Your task to perform on an android device: turn notification dots on Image 0: 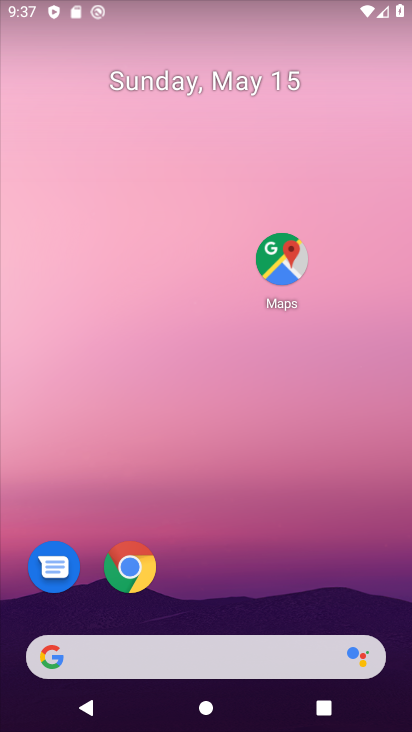
Step 0: drag from (244, 564) to (192, 13)
Your task to perform on an android device: turn notification dots on Image 1: 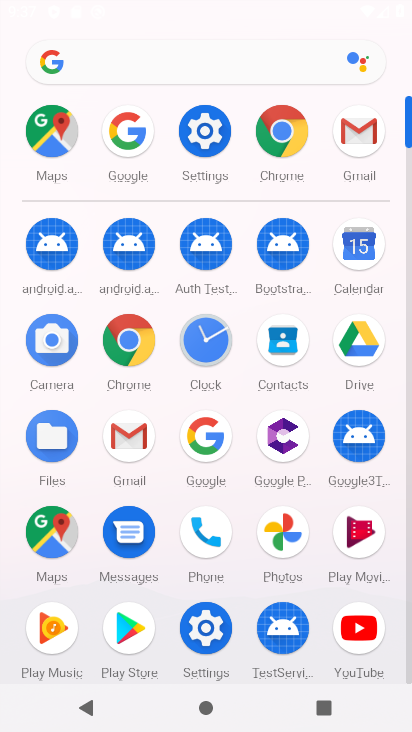
Step 1: click (211, 118)
Your task to perform on an android device: turn notification dots on Image 2: 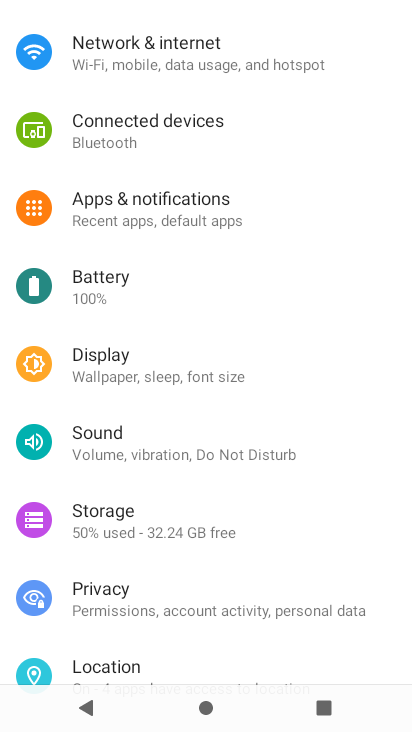
Step 2: click (174, 205)
Your task to perform on an android device: turn notification dots on Image 3: 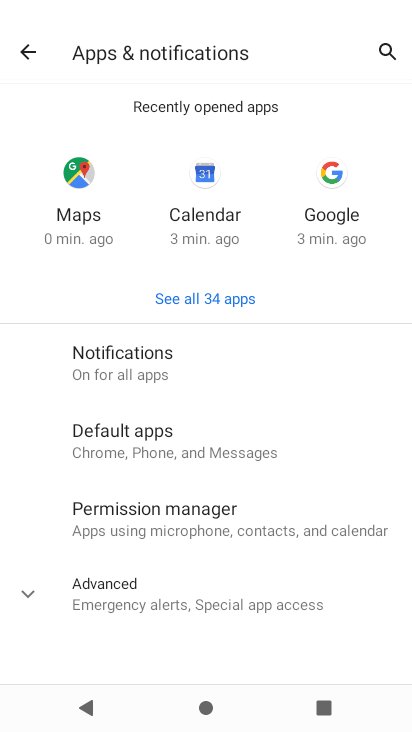
Step 3: click (147, 364)
Your task to perform on an android device: turn notification dots on Image 4: 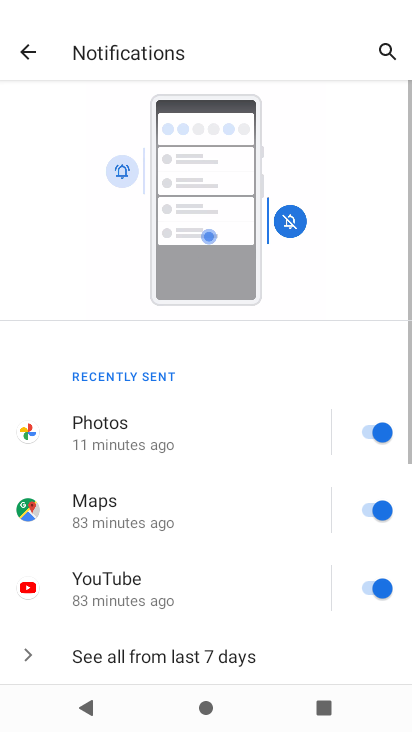
Step 4: drag from (228, 549) to (241, 14)
Your task to perform on an android device: turn notification dots on Image 5: 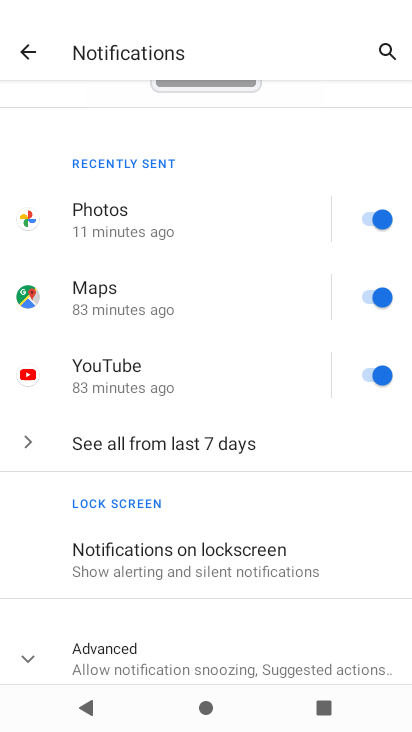
Step 5: click (120, 656)
Your task to perform on an android device: turn notification dots on Image 6: 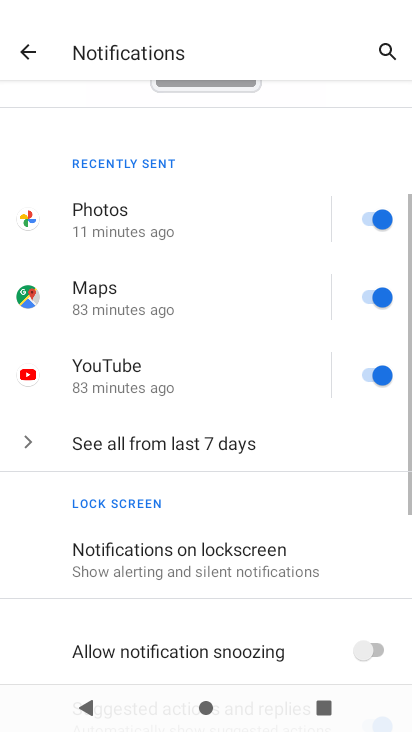
Step 6: drag from (192, 627) to (210, 228)
Your task to perform on an android device: turn notification dots on Image 7: 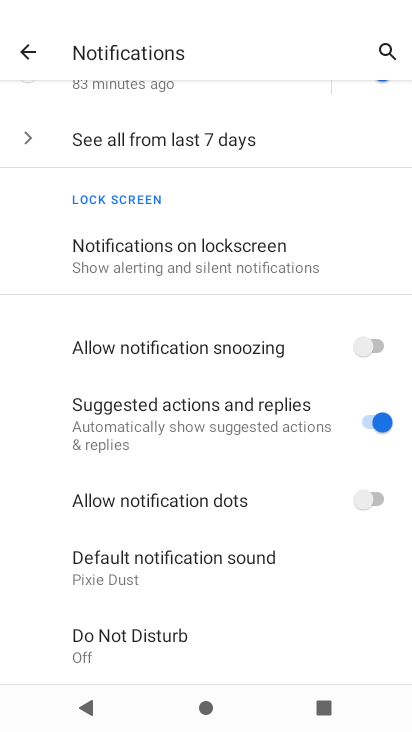
Step 7: click (369, 496)
Your task to perform on an android device: turn notification dots on Image 8: 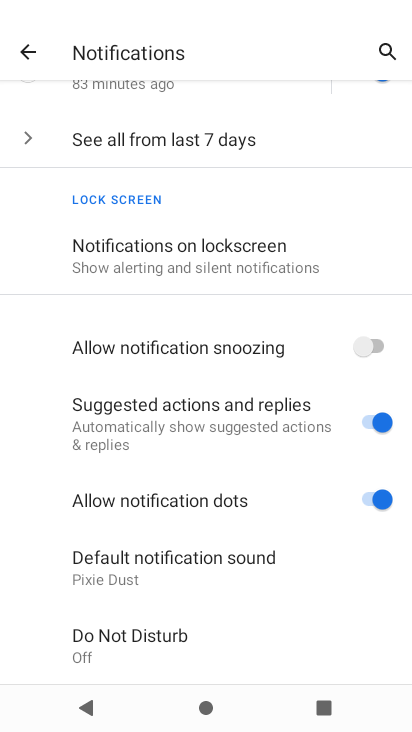
Step 8: task complete